Your task to perform on an android device: turn on priority inbox in the gmail app Image 0: 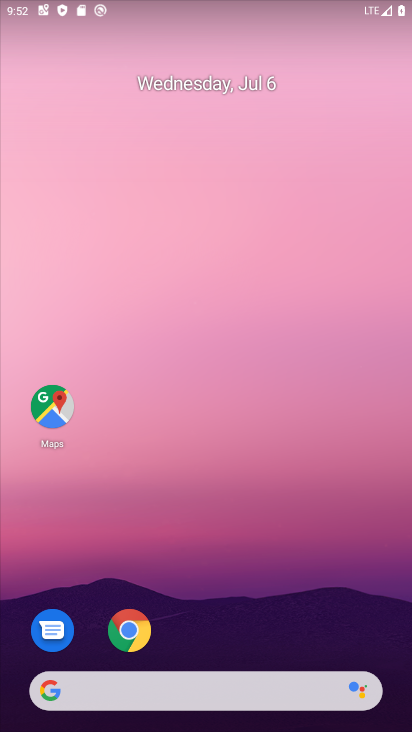
Step 0: drag from (382, 632) to (340, 145)
Your task to perform on an android device: turn on priority inbox in the gmail app Image 1: 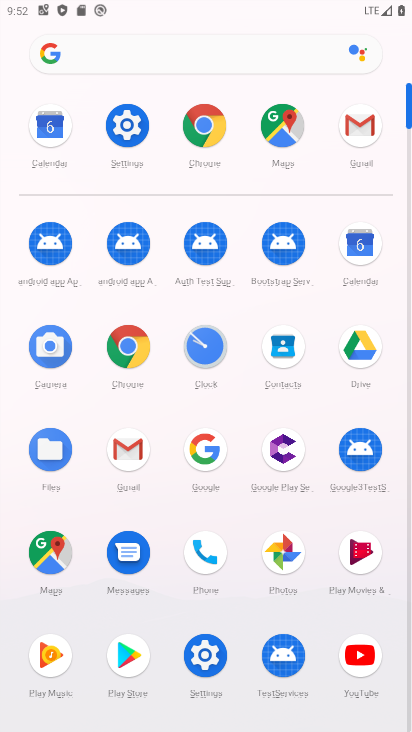
Step 1: click (127, 451)
Your task to perform on an android device: turn on priority inbox in the gmail app Image 2: 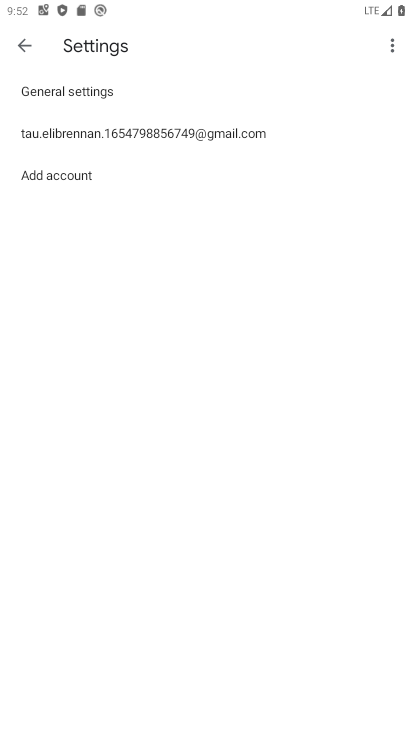
Step 2: press back button
Your task to perform on an android device: turn on priority inbox in the gmail app Image 3: 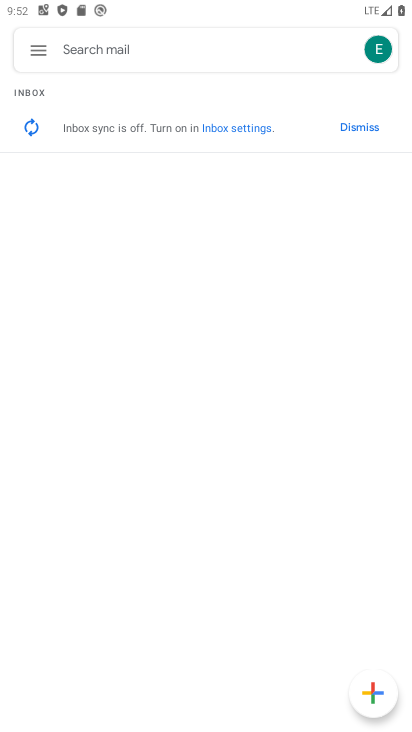
Step 3: click (37, 51)
Your task to perform on an android device: turn on priority inbox in the gmail app Image 4: 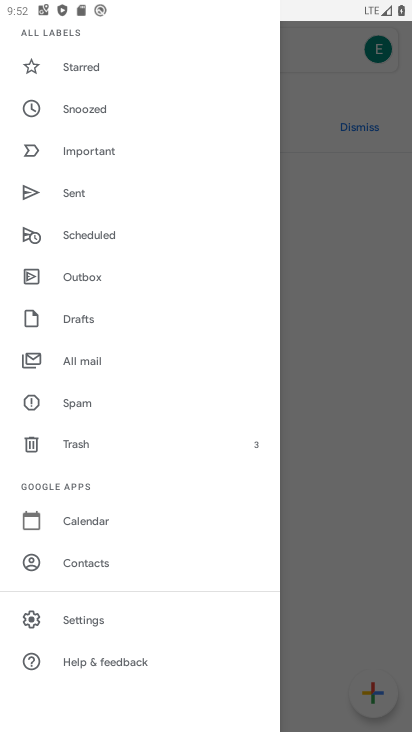
Step 4: click (80, 620)
Your task to perform on an android device: turn on priority inbox in the gmail app Image 5: 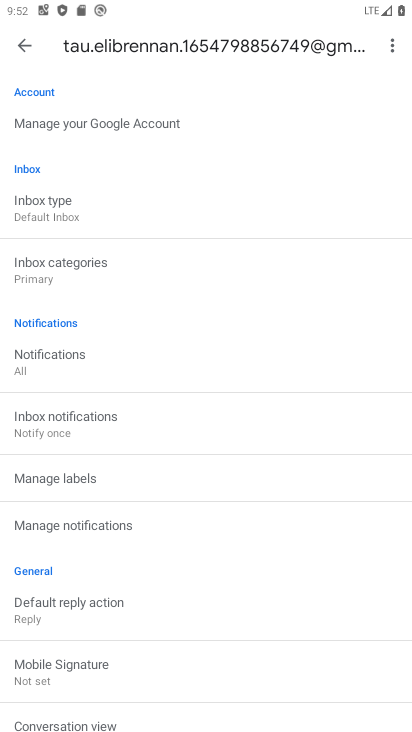
Step 5: drag from (176, 590) to (180, 291)
Your task to perform on an android device: turn on priority inbox in the gmail app Image 6: 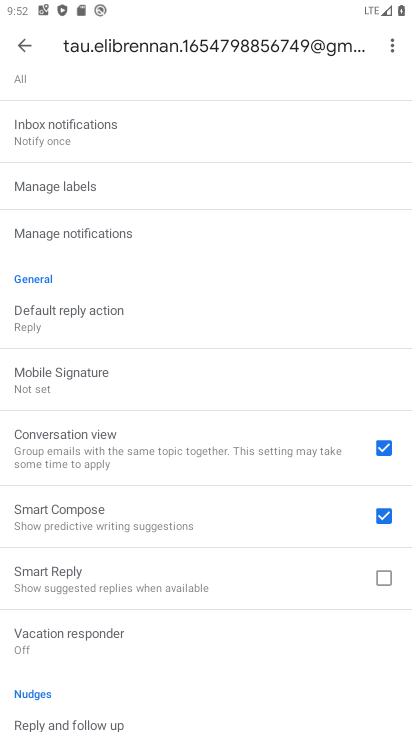
Step 6: drag from (180, 291) to (177, 606)
Your task to perform on an android device: turn on priority inbox in the gmail app Image 7: 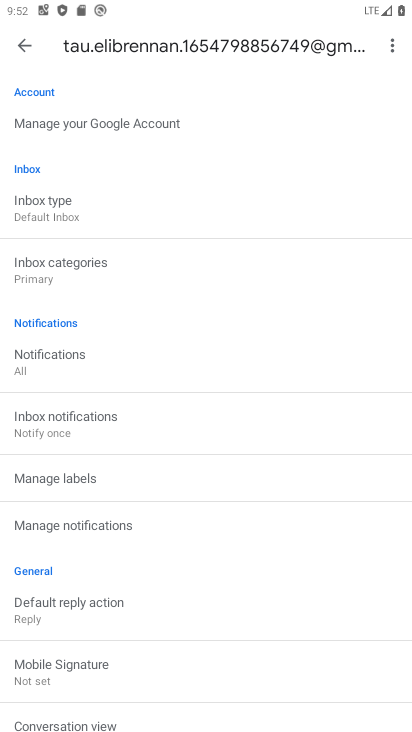
Step 7: click (42, 210)
Your task to perform on an android device: turn on priority inbox in the gmail app Image 8: 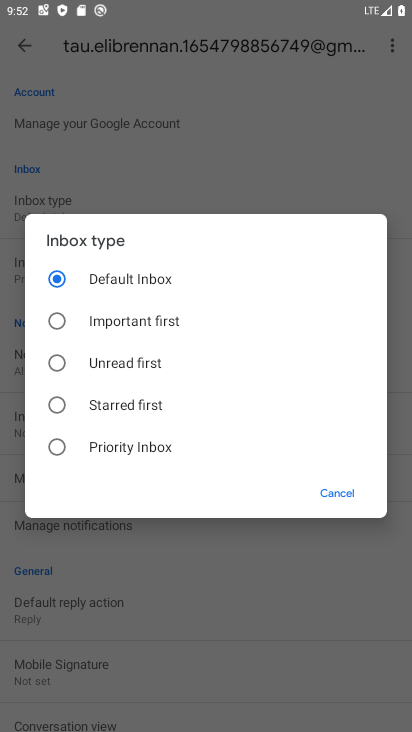
Step 8: click (64, 444)
Your task to perform on an android device: turn on priority inbox in the gmail app Image 9: 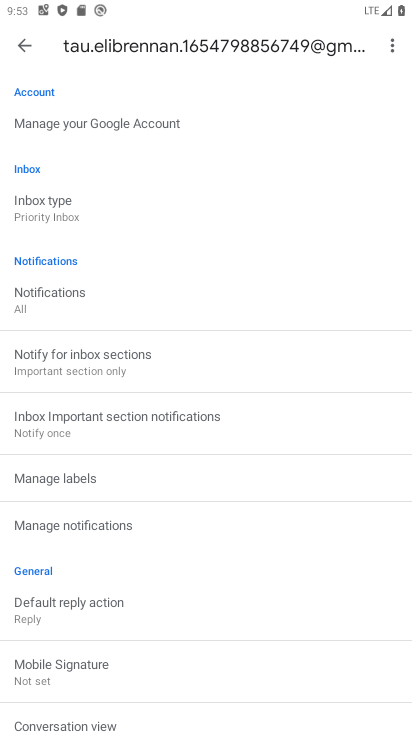
Step 9: task complete